Your task to perform on an android device: change the clock display to analog Image 0: 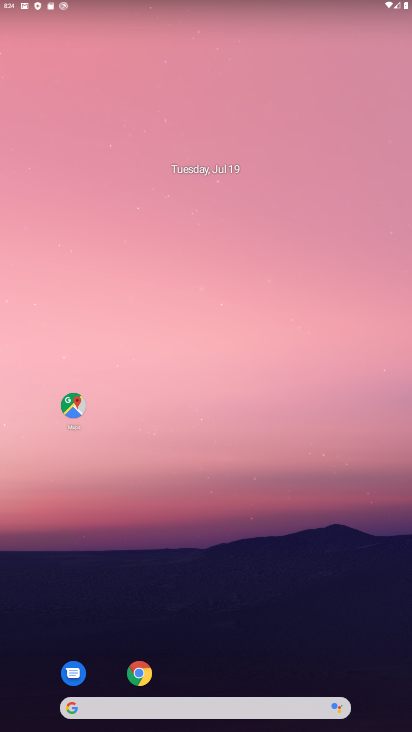
Step 0: drag from (208, 180) to (295, 22)
Your task to perform on an android device: change the clock display to analog Image 1: 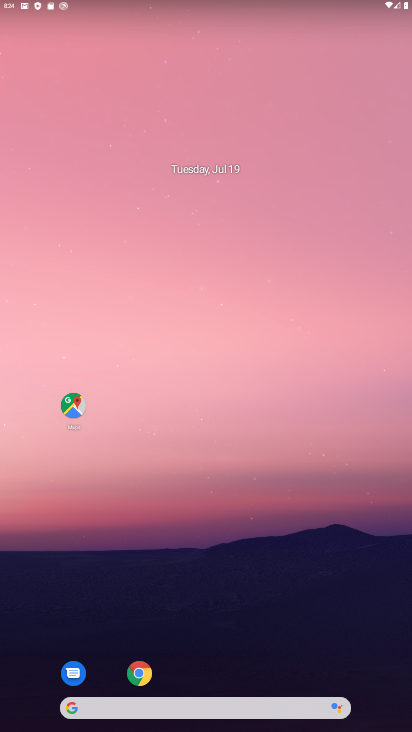
Step 1: drag from (216, 679) to (283, 4)
Your task to perform on an android device: change the clock display to analog Image 2: 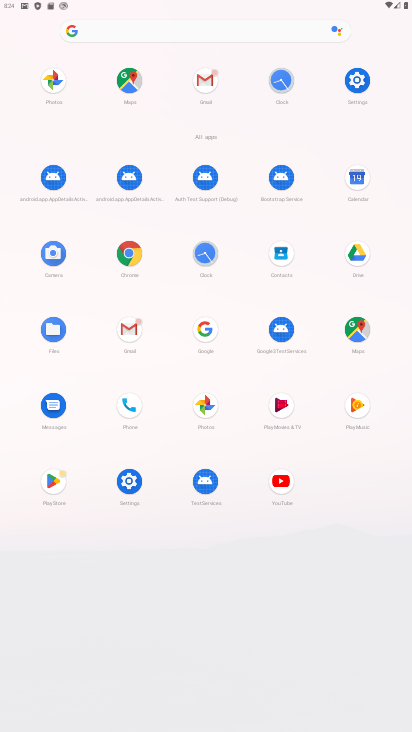
Step 2: click (209, 264)
Your task to perform on an android device: change the clock display to analog Image 3: 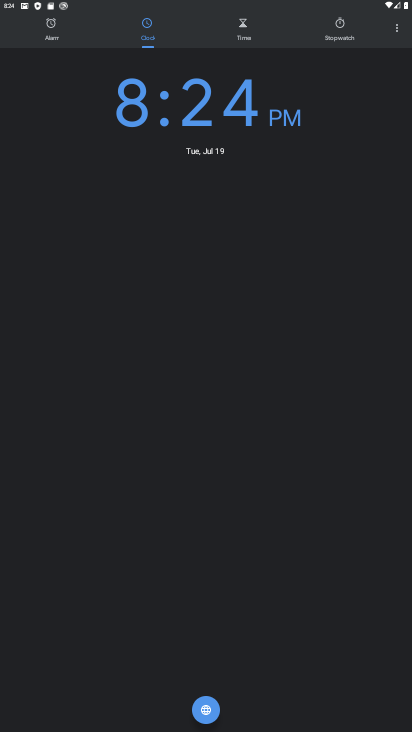
Step 3: click (401, 35)
Your task to perform on an android device: change the clock display to analog Image 4: 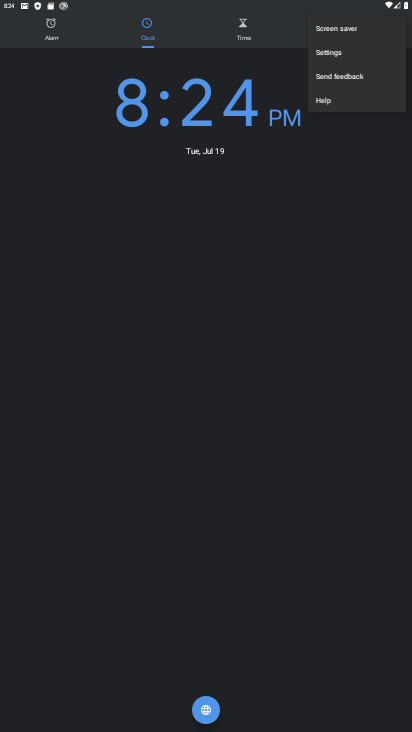
Step 4: click (334, 61)
Your task to perform on an android device: change the clock display to analog Image 5: 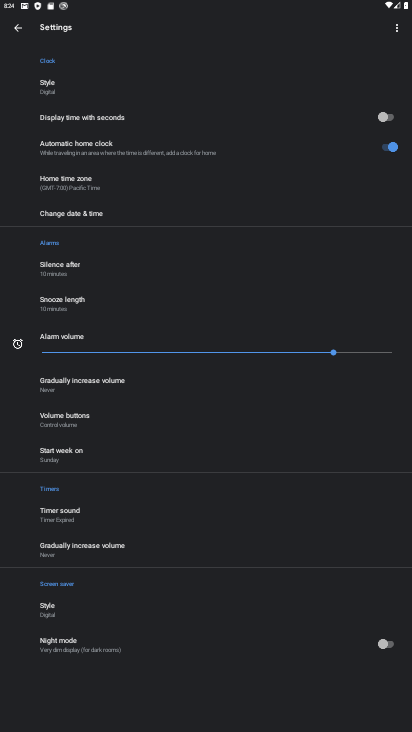
Step 5: click (45, 94)
Your task to perform on an android device: change the clock display to analog Image 6: 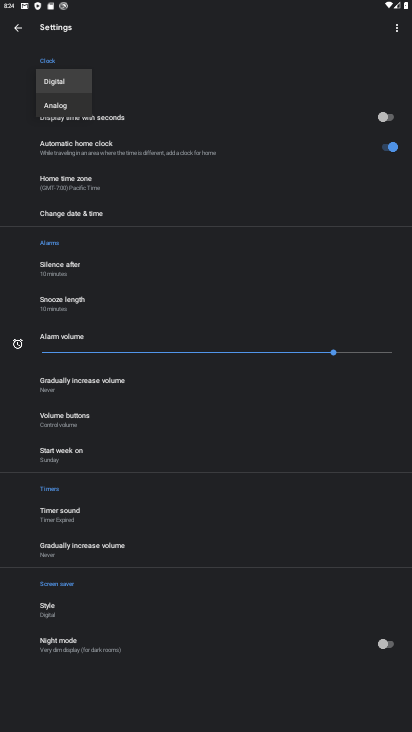
Step 6: click (63, 110)
Your task to perform on an android device: change the clock display to analog Image 7: 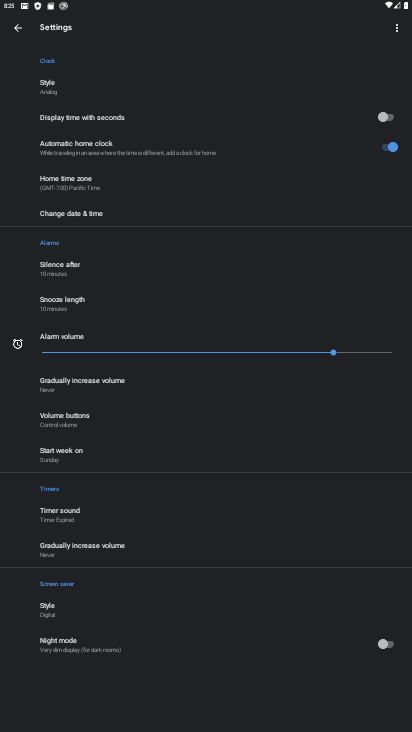
Step 7: task complete